Your task to perform on an android device: Clear all items from cart on bestbuy.com. Image 0: 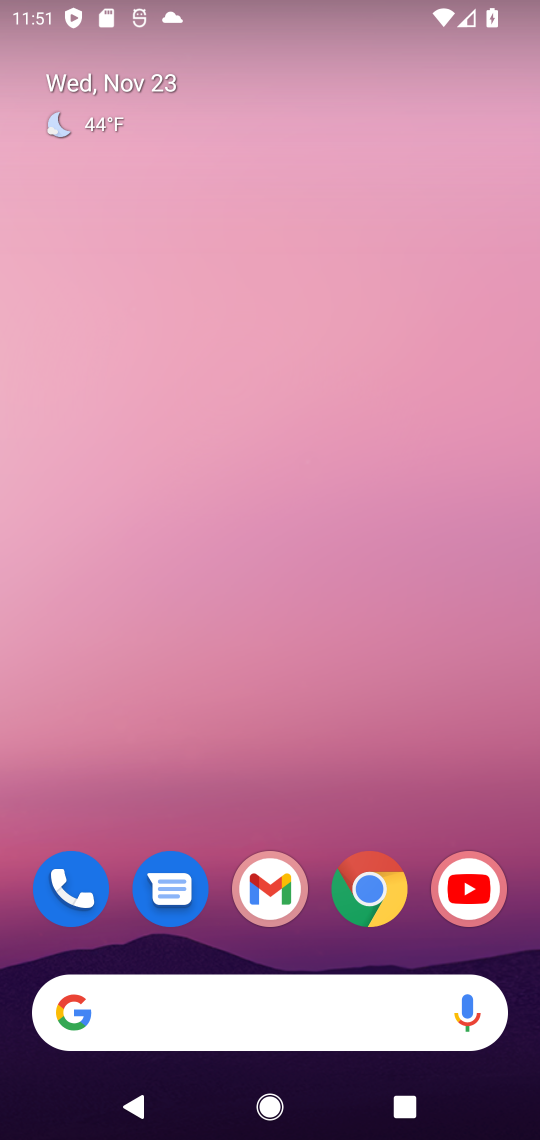
Step 0: click (370, 903)
Your task to perform on an android device: Clear all items from cart on bestbuy.com. Image 1: 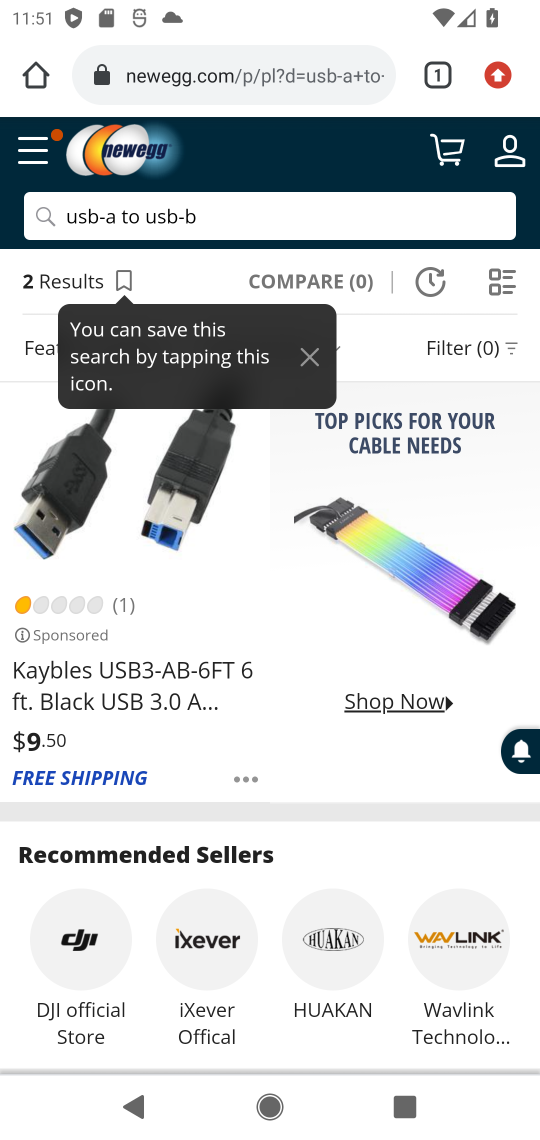
Step 1: click (202, 80)
Your task to perform on an android device: Clear all items from cart on bestbuy.com. Image 2: 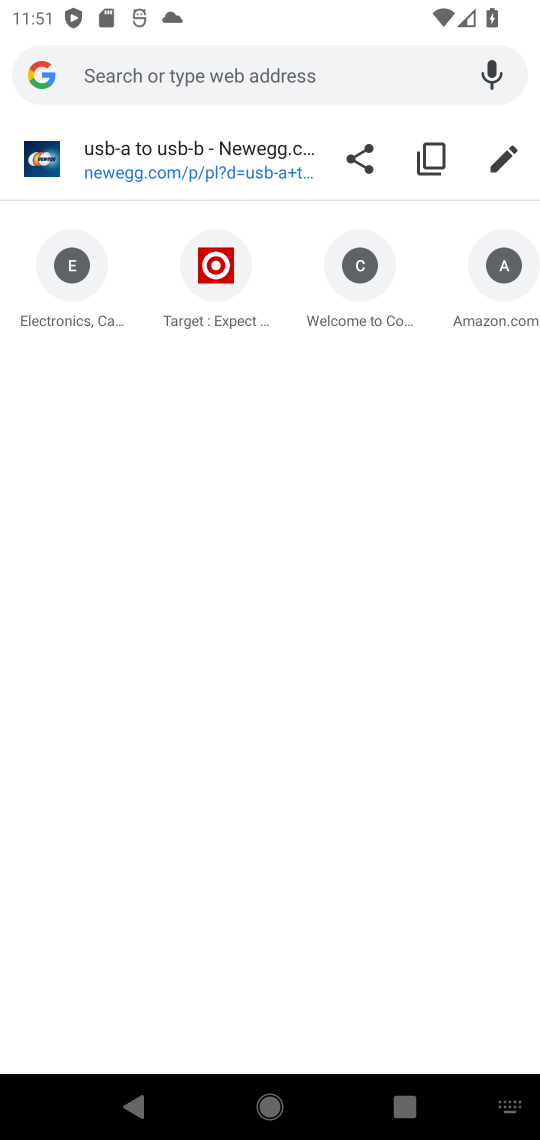
Step 2: type "bestbuy.com"
Your task to perform on an android device: Clear all items from cart on bestbuy.com. Image 3: 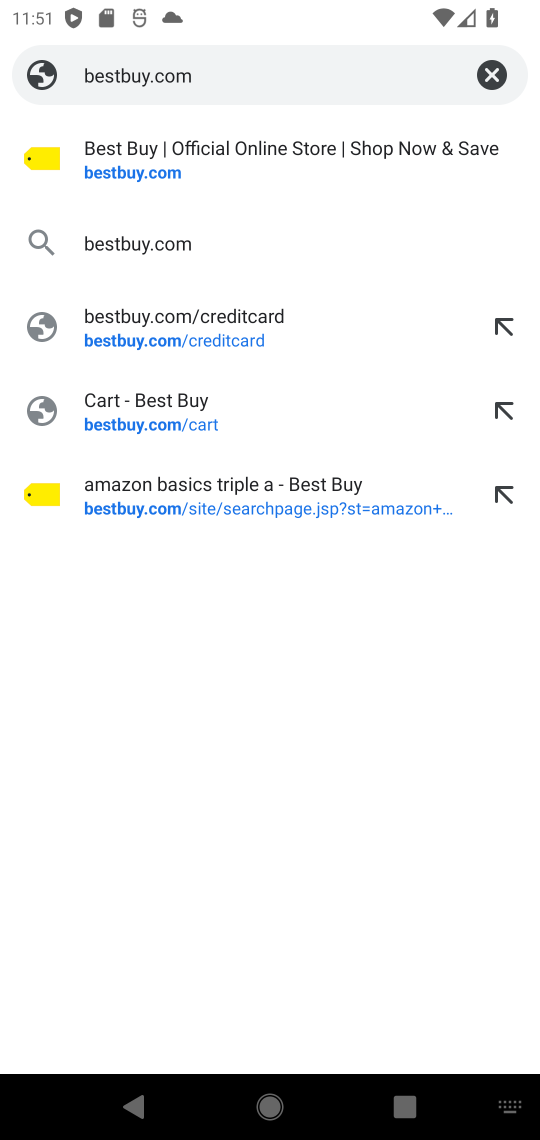
Step 3: click (129, 170)
Your task to perform on an android device: Clear all items from cart on bestbuy.com. Image 4: 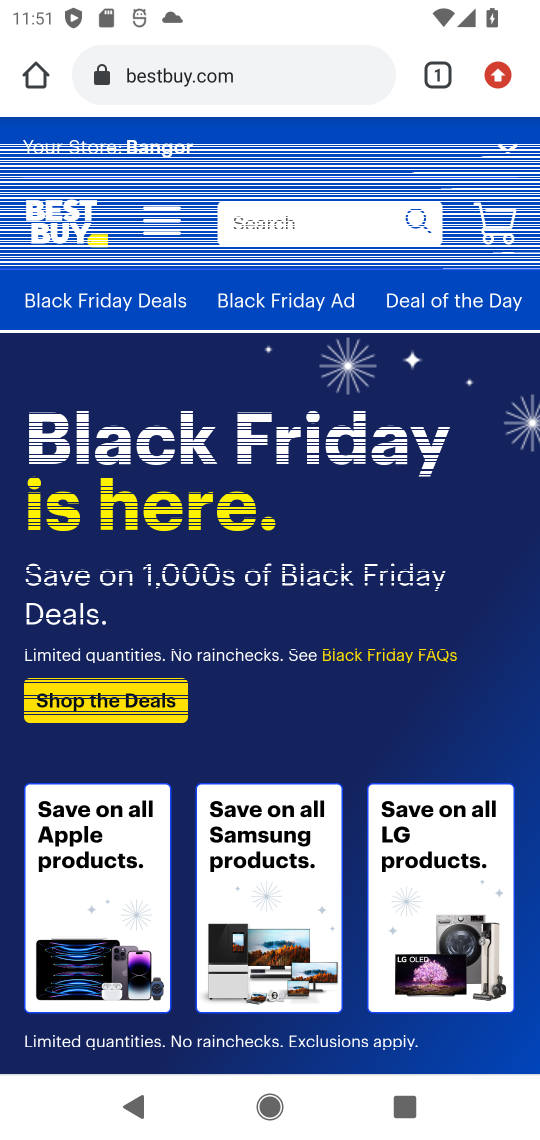
Step 4: click (497, 232)
Your task to perform on an android device: Clear all items from cart on bestbuy.com. Image 5: 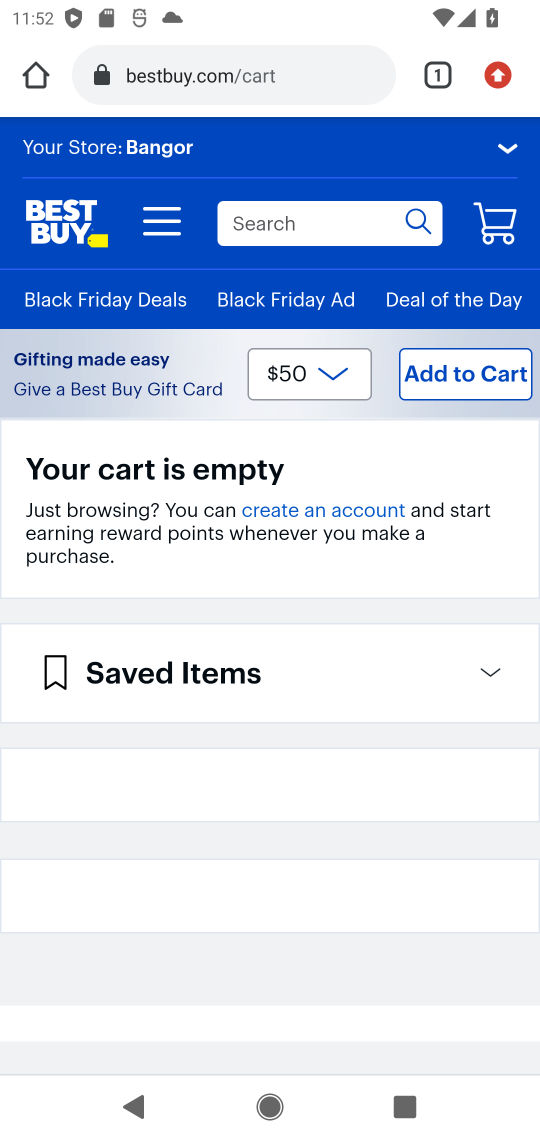
Step 5: task complete